Your task to perform on an android device: Go to eBay Image 0: 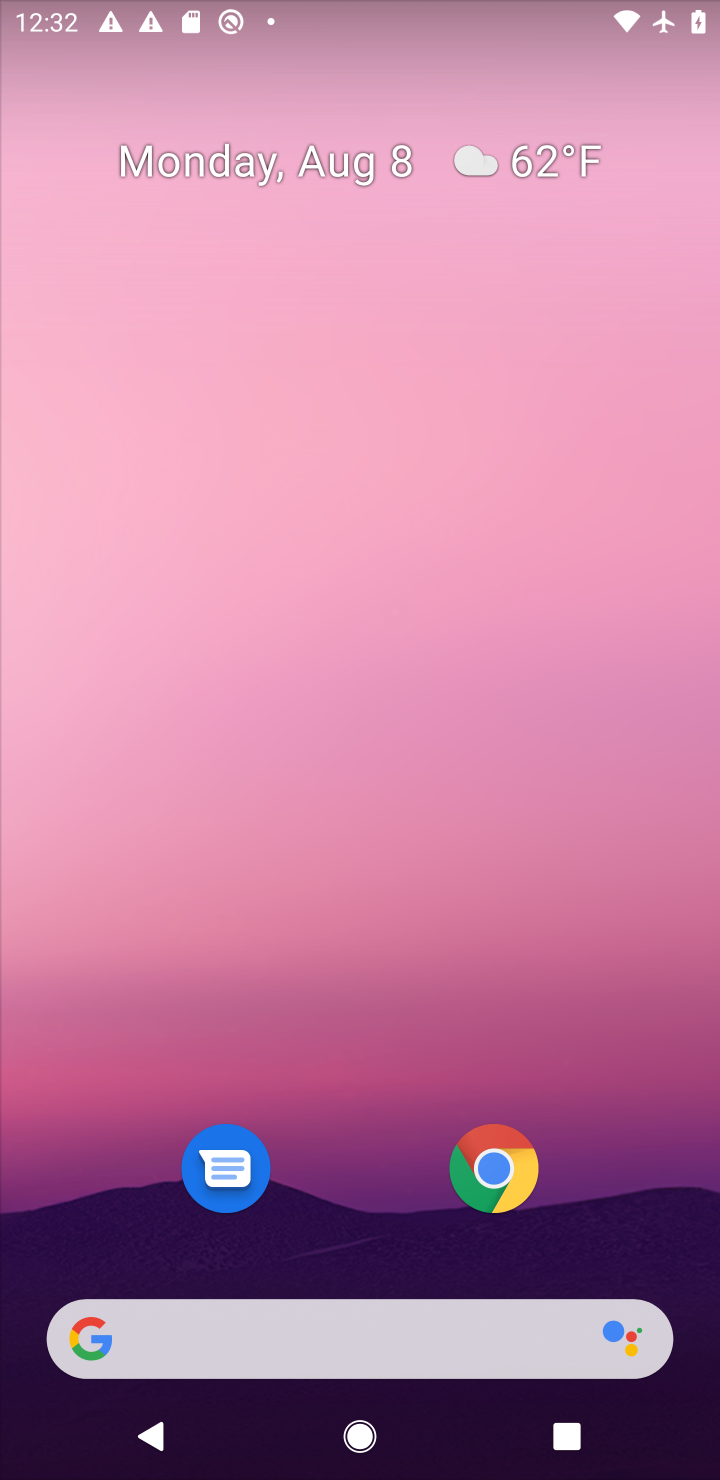
Step 0: drag from (381, 1254) to (364, 7)
Your task to perform on an android device: Go to eBay Image 1: 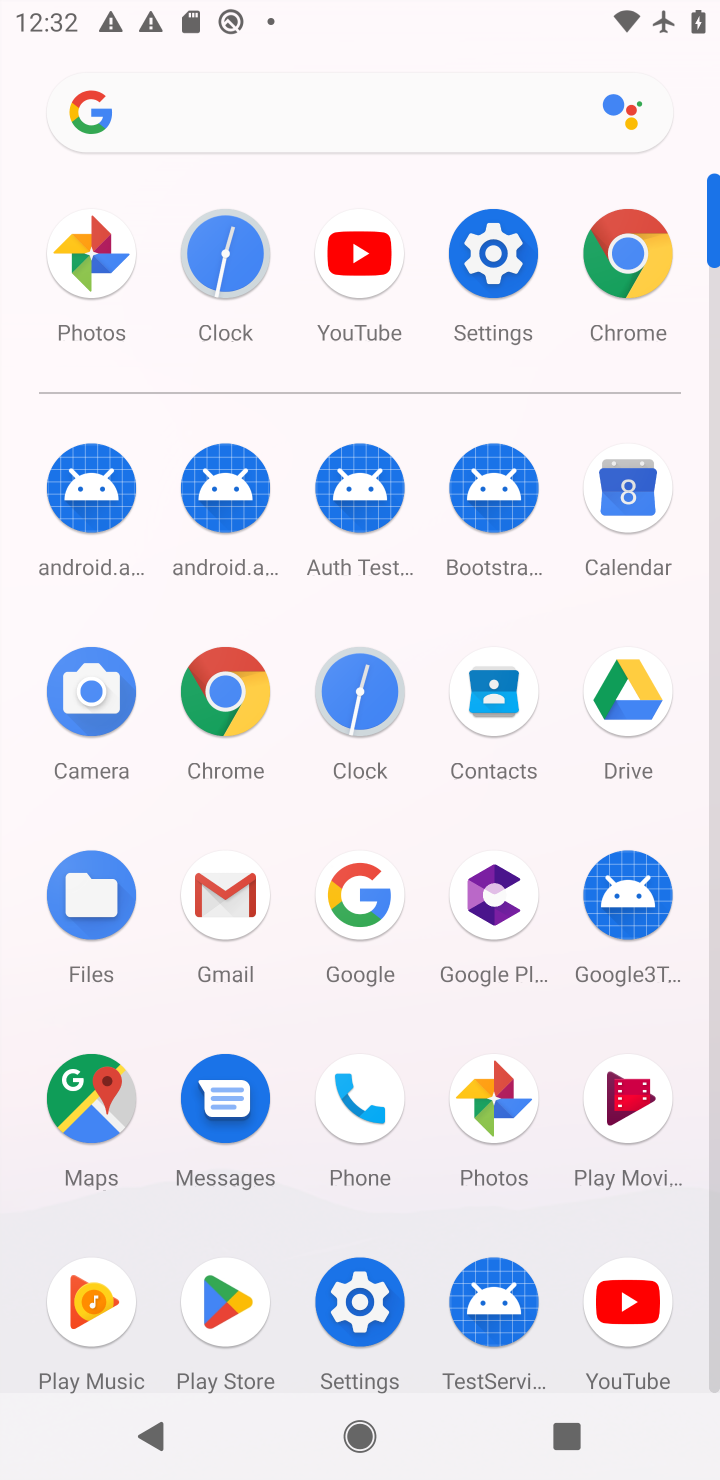
Step 1: click (606, 263)
Your task to perform on an android device: Go to eBay Image 2: 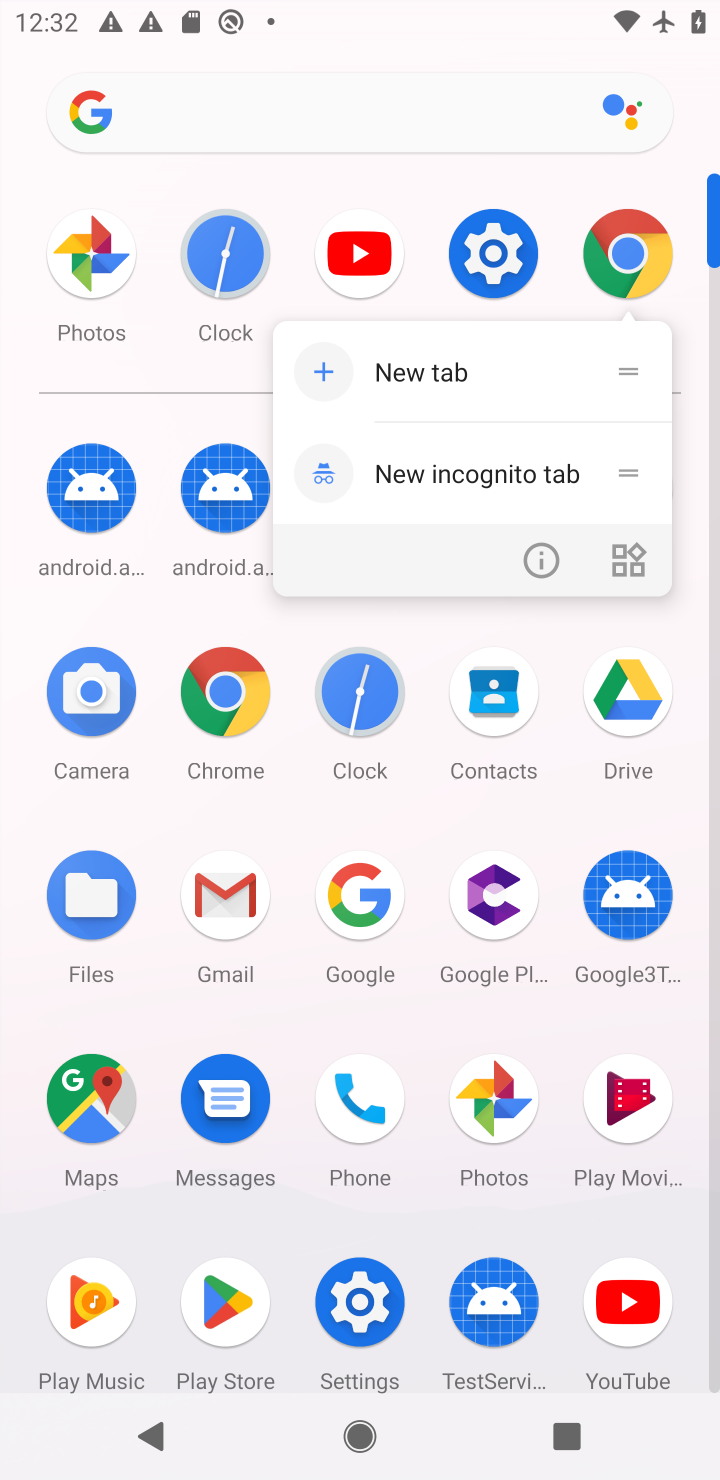
Step 2: click (624, 239)
Your task to perform on an android device: Go to eBay Image 3: 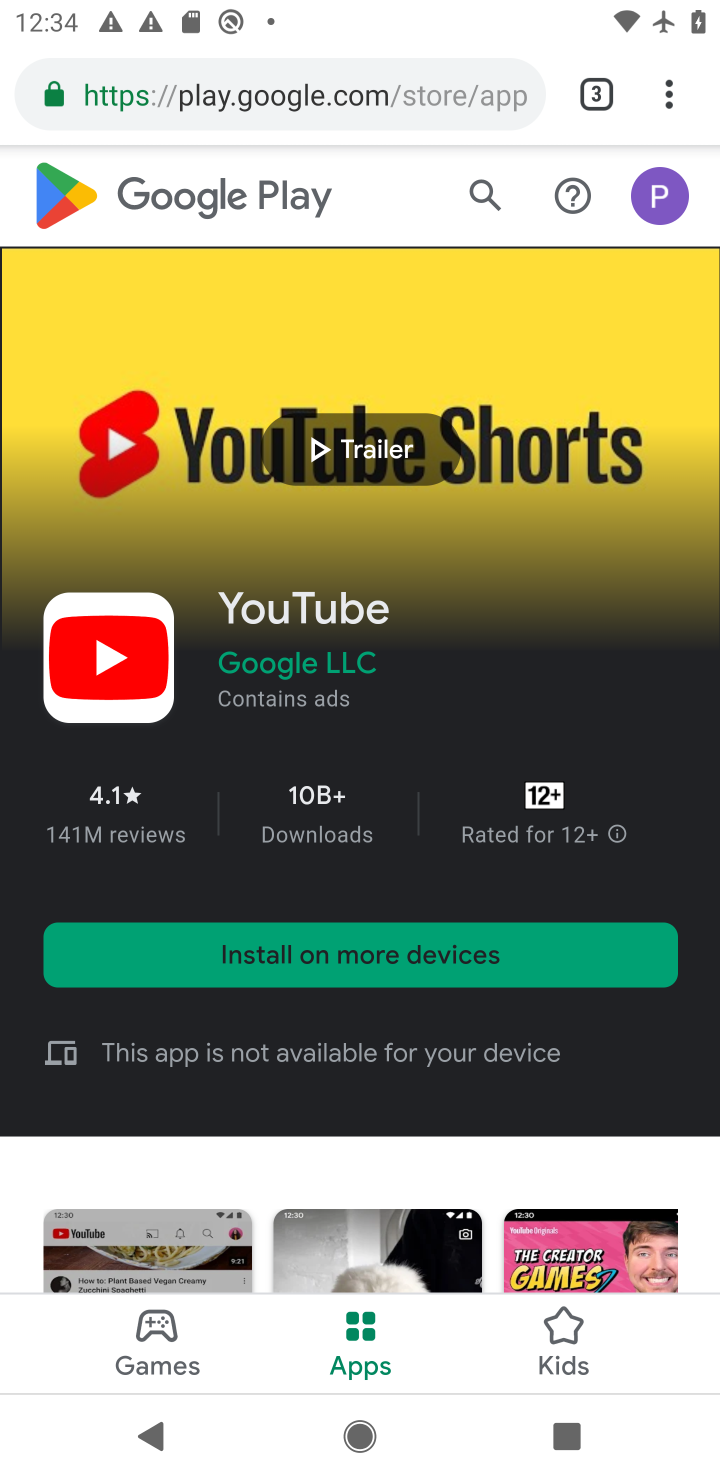
Step 3: click (452, 121)
Your task to perform on an android device: Go to eBay Image 4: 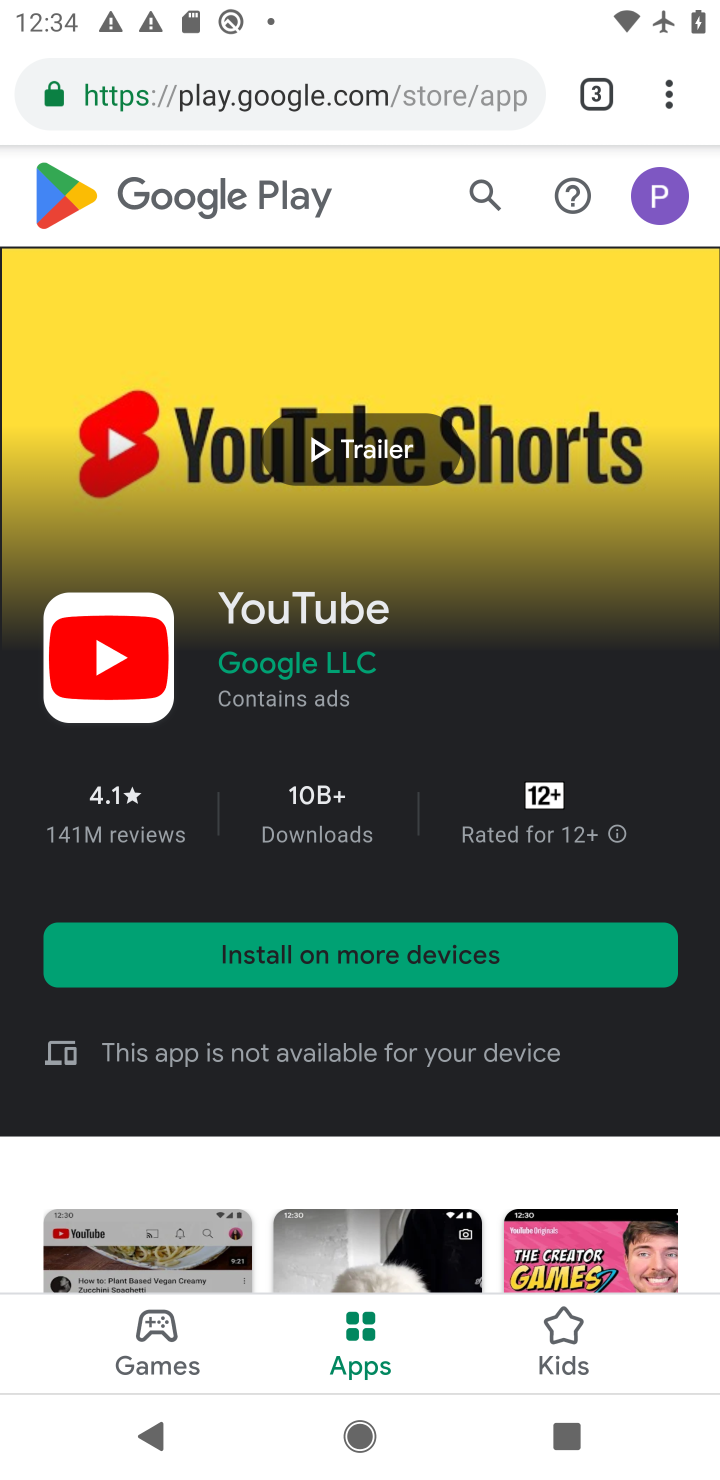
Step 4: click (452, 121)
Your task to perform on an android device: Go to eBay Image 5: 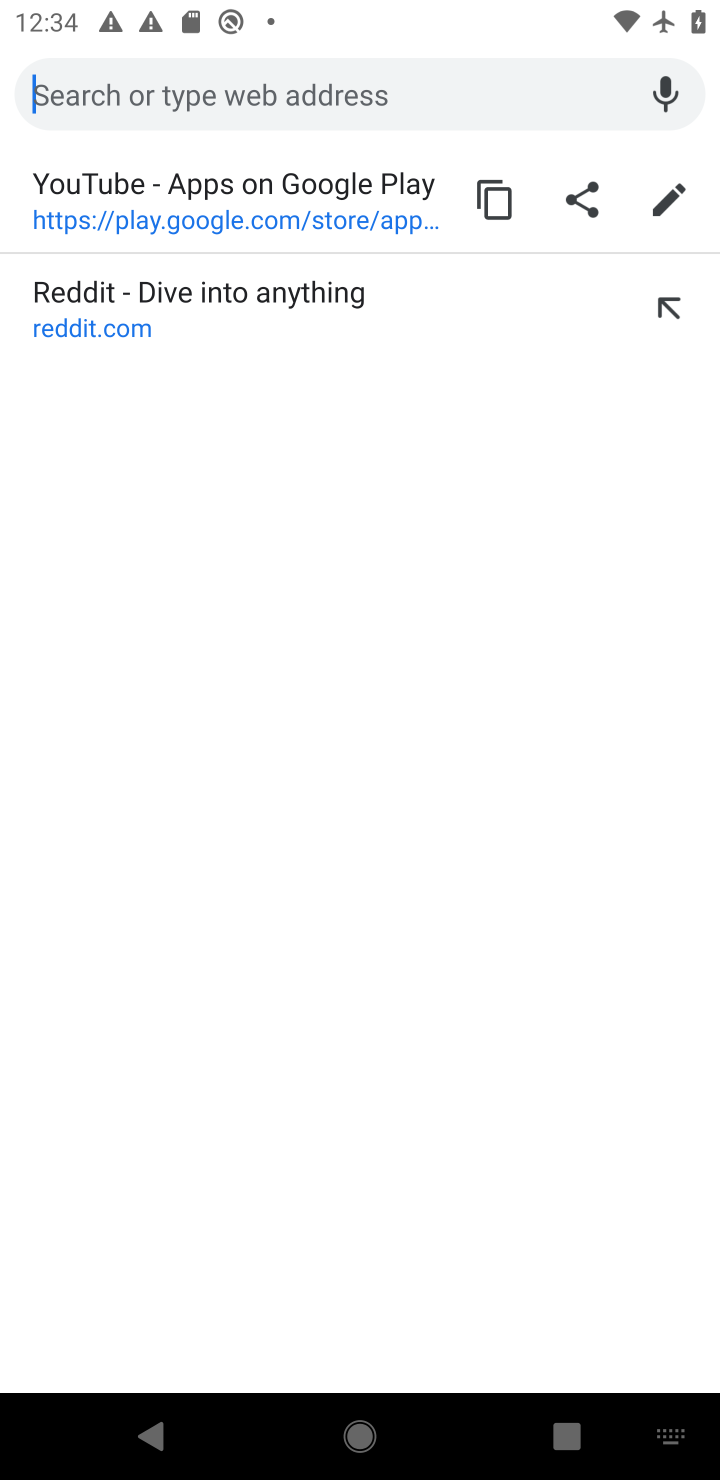
Step 5: type "ebay.com"
Your task to perform on an android device: Go to eBay Image 6: 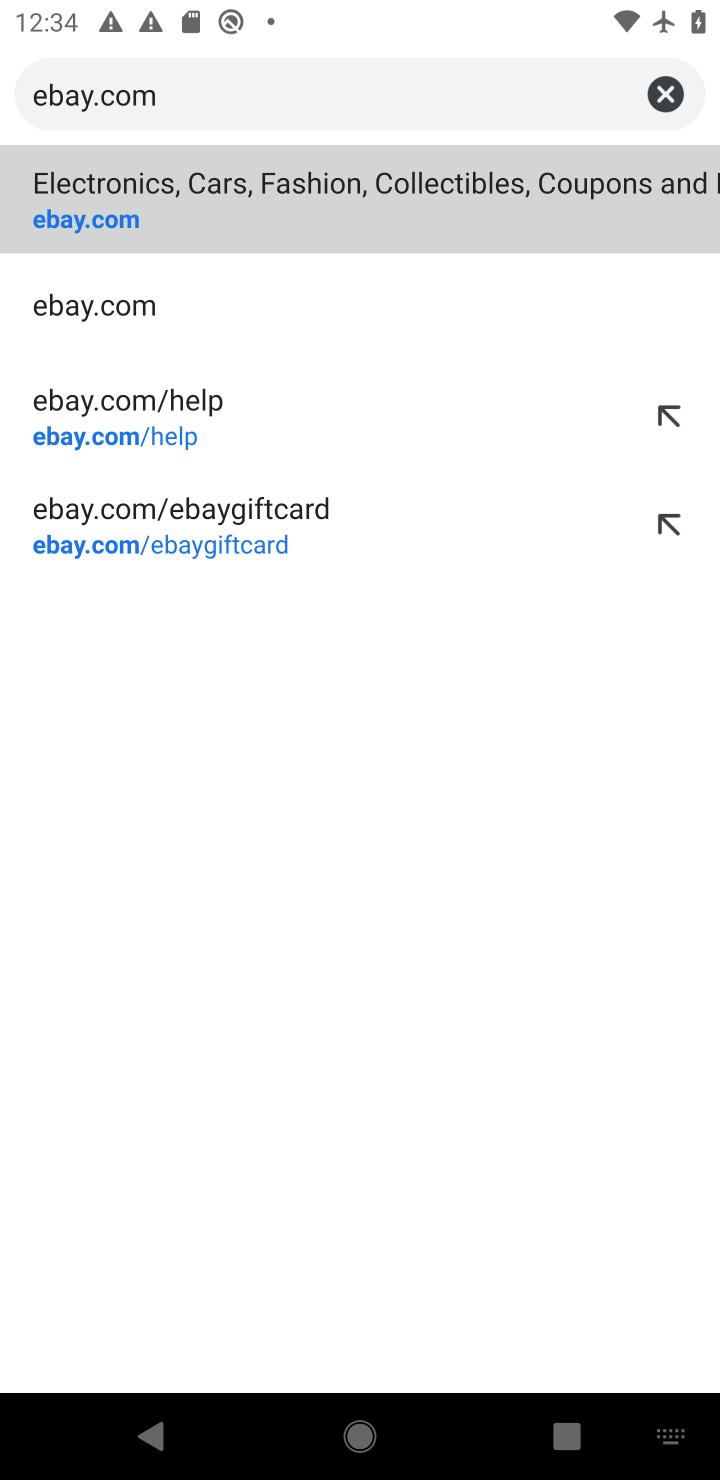
Step 6: click (352, 168)
Your task to perform on an android device: Go to eBay Image 7: 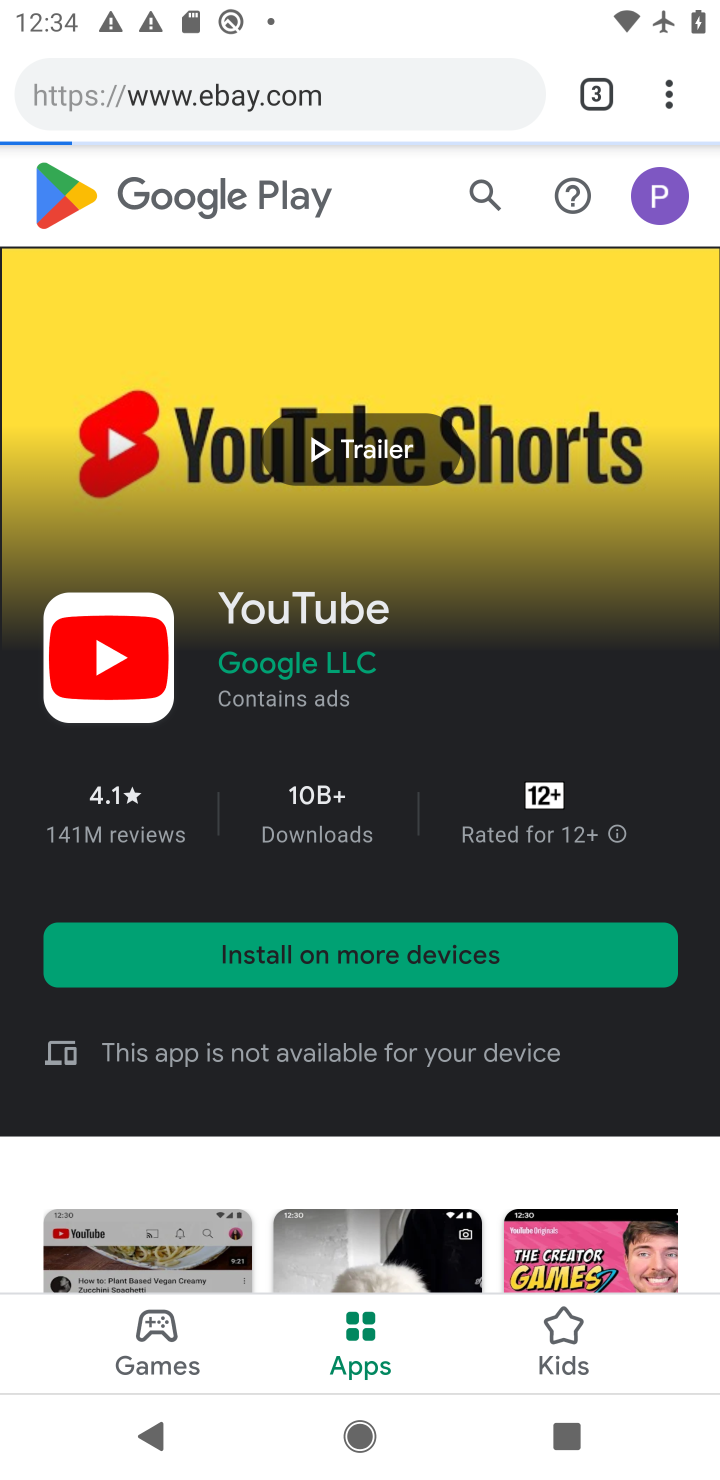
Step 7: task complete